Your task to perform on an android device: Open Maps and search for coffee Image 0: 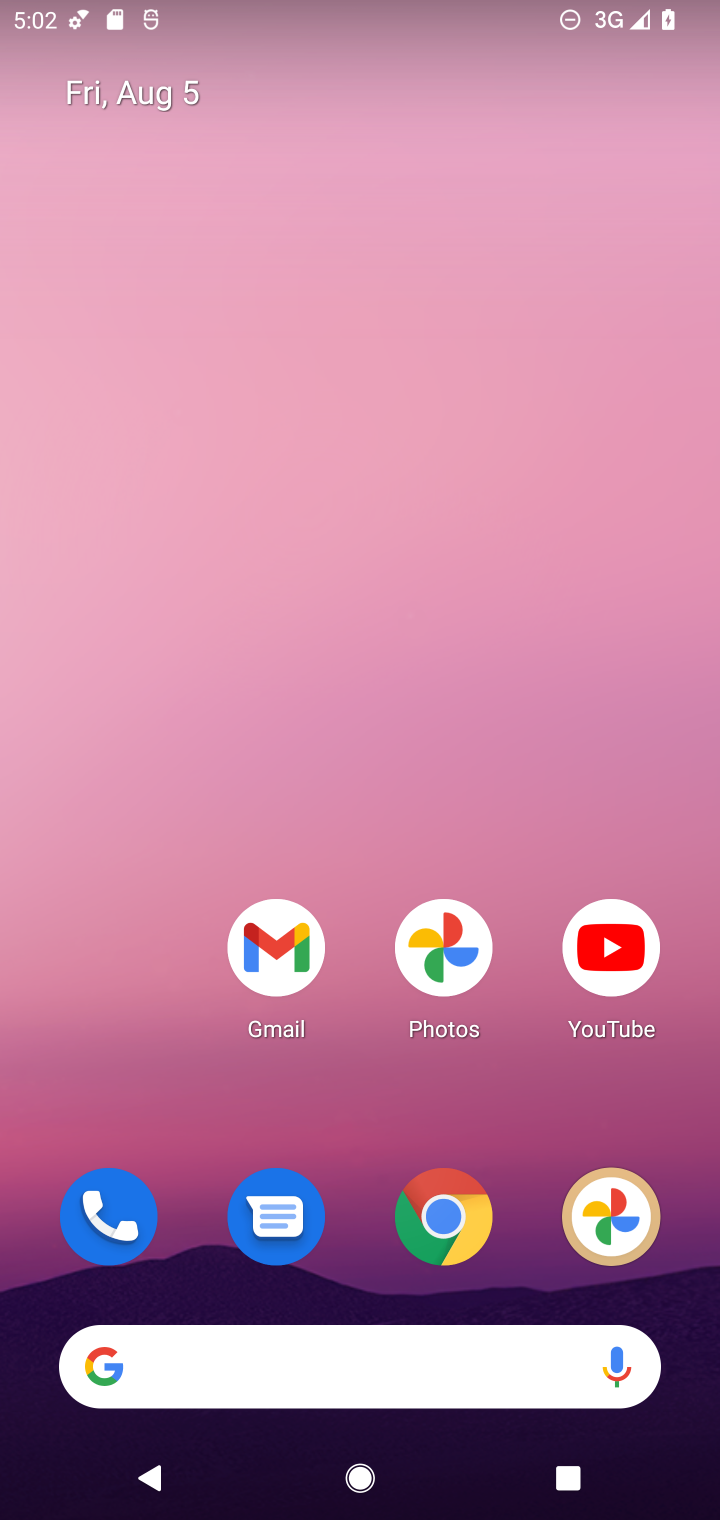
Step 0: drag from (334, 589) to (327, 48)
Your task to perform on an android device: Open Maps and search for coffee Image 1: 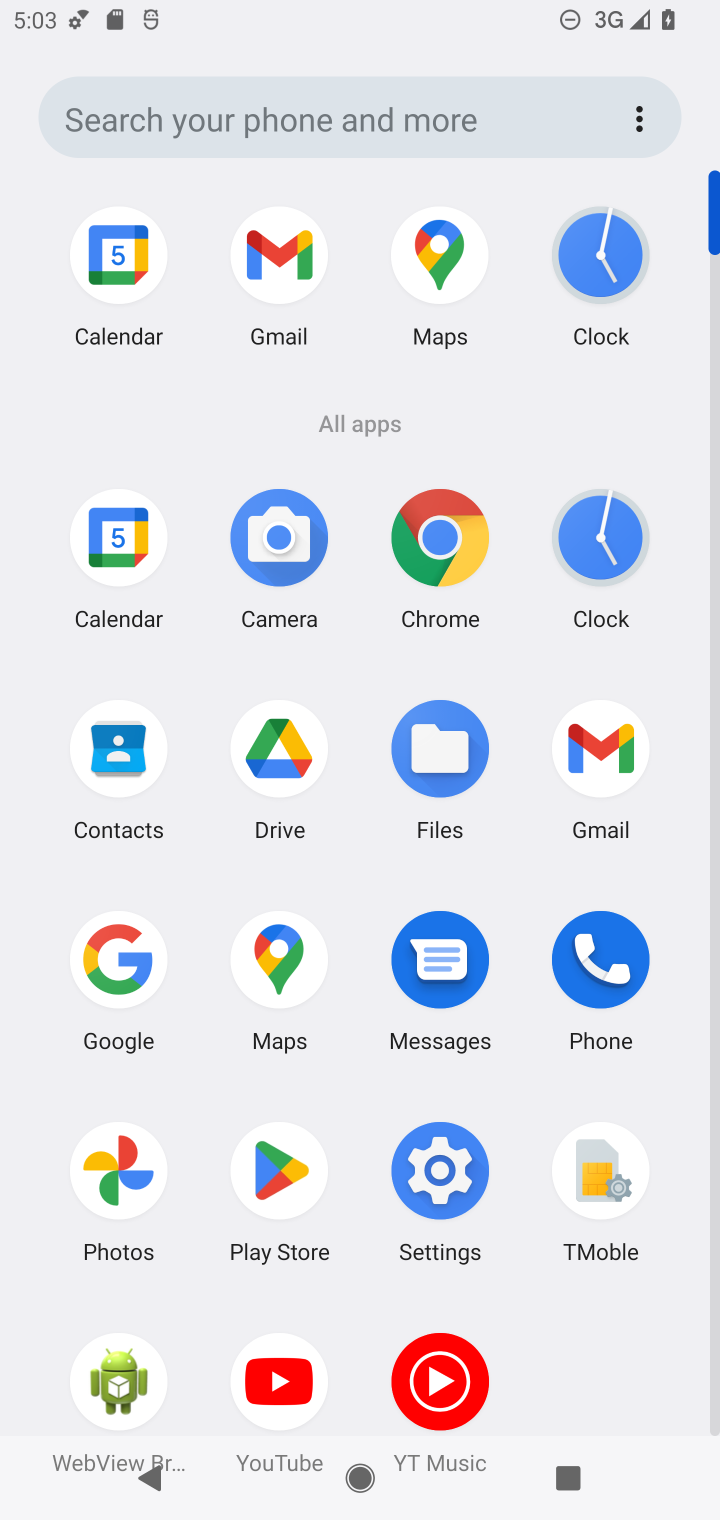
Step 1: click (448, 286)
Your task to perform on an android device: Open Maps and search for coffee Image 2: 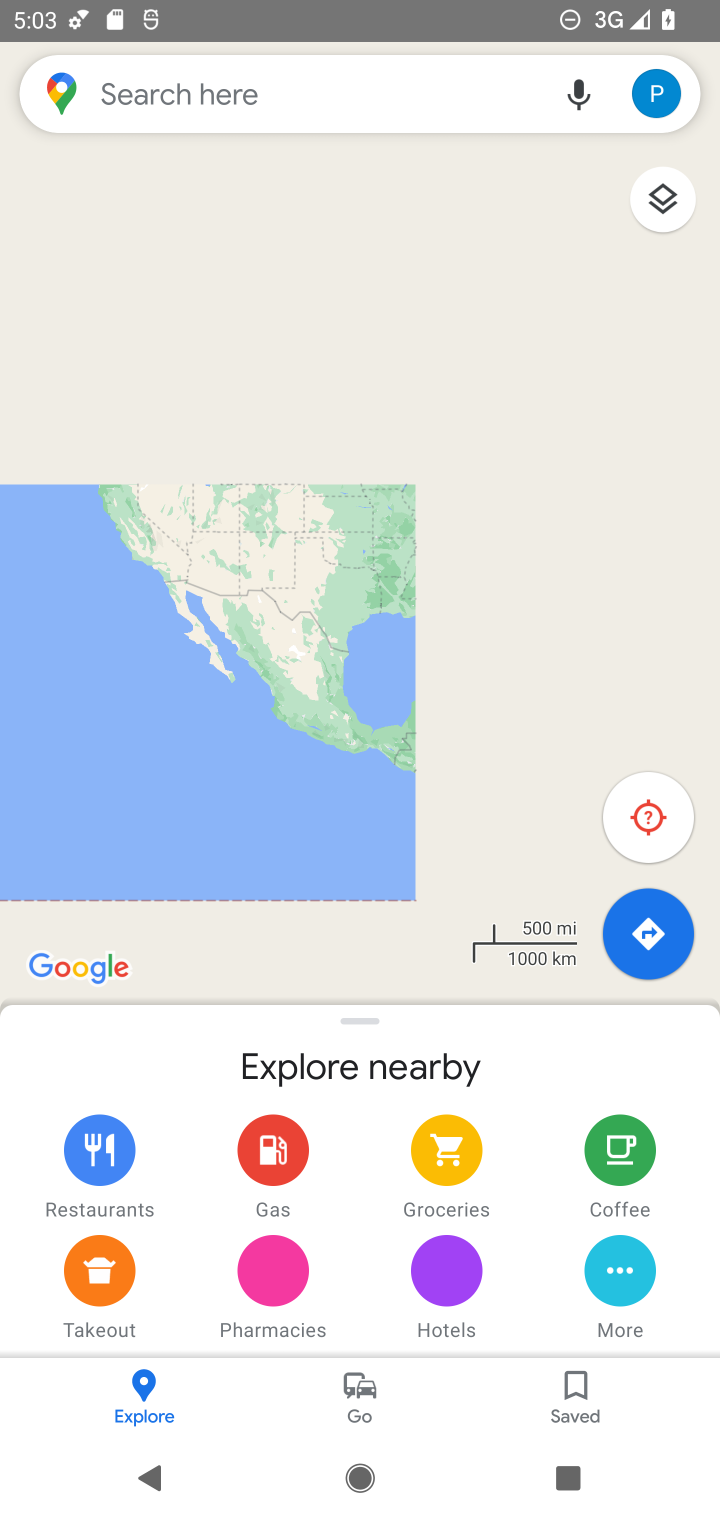
Step 2: click (496, 95)
Your task to perform on an android device: Open Maps and search for coffee Image 3: 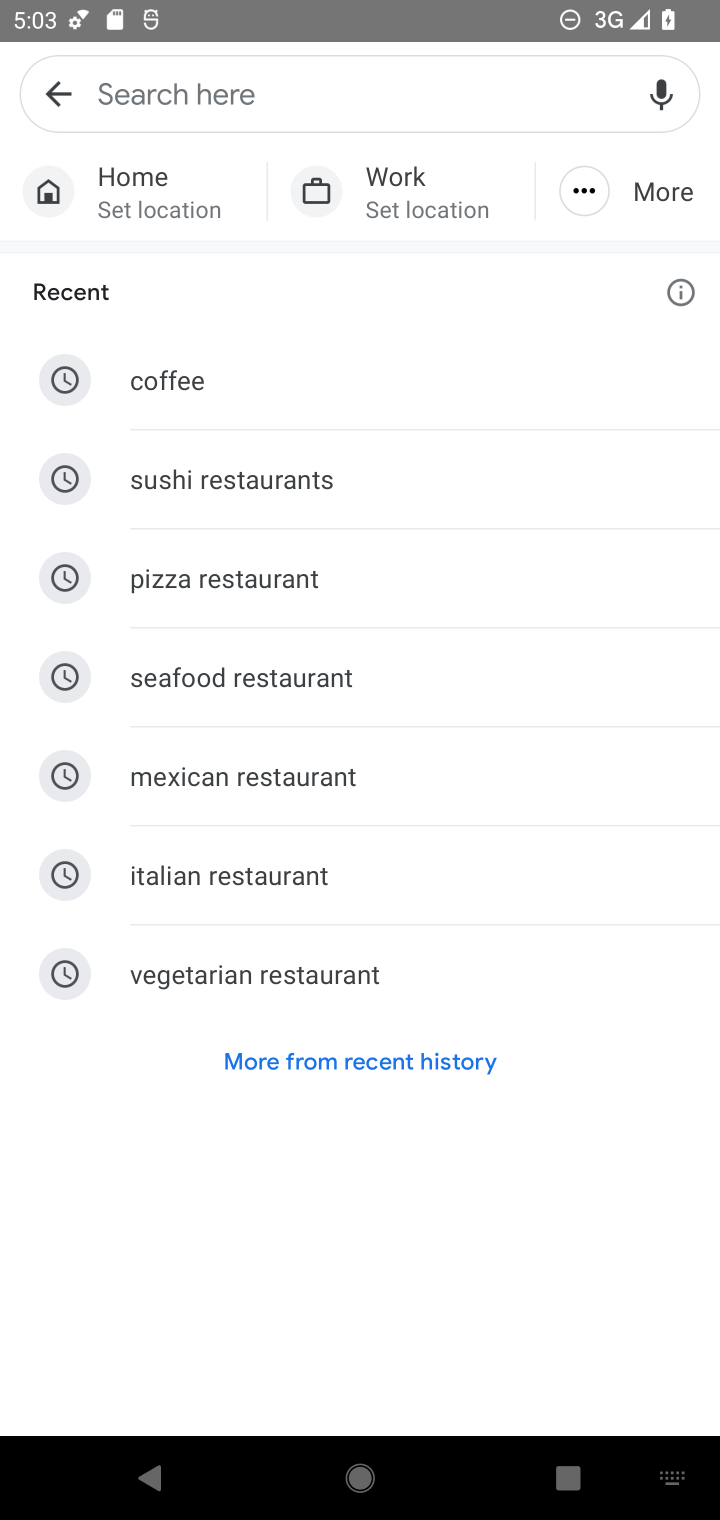
Step 3: type "coffee"
Your task to perform on an android device: Open Maps and search for coffee Image 4: 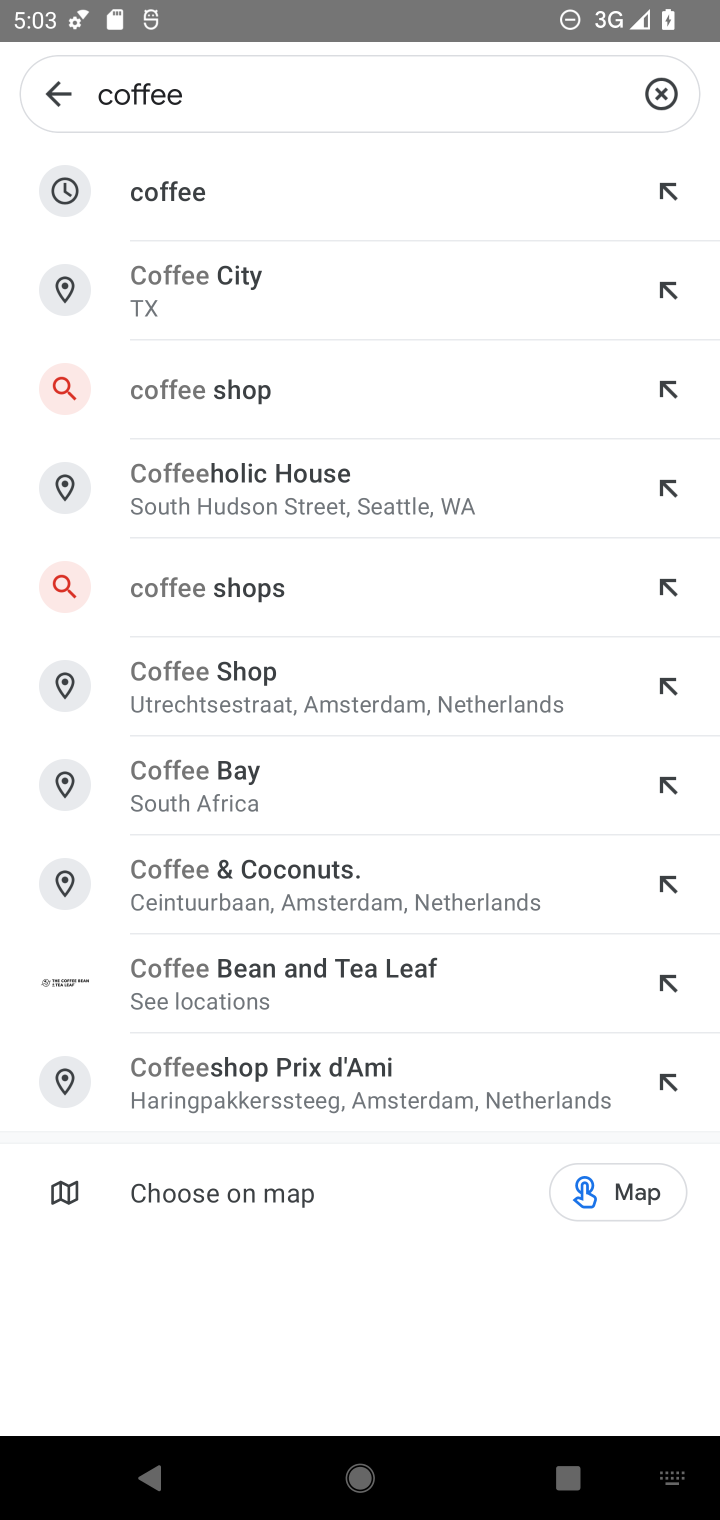
Step 4: click (462, 171)
Your task to perform on an android device: Open Maps and search for coffee Image 5: 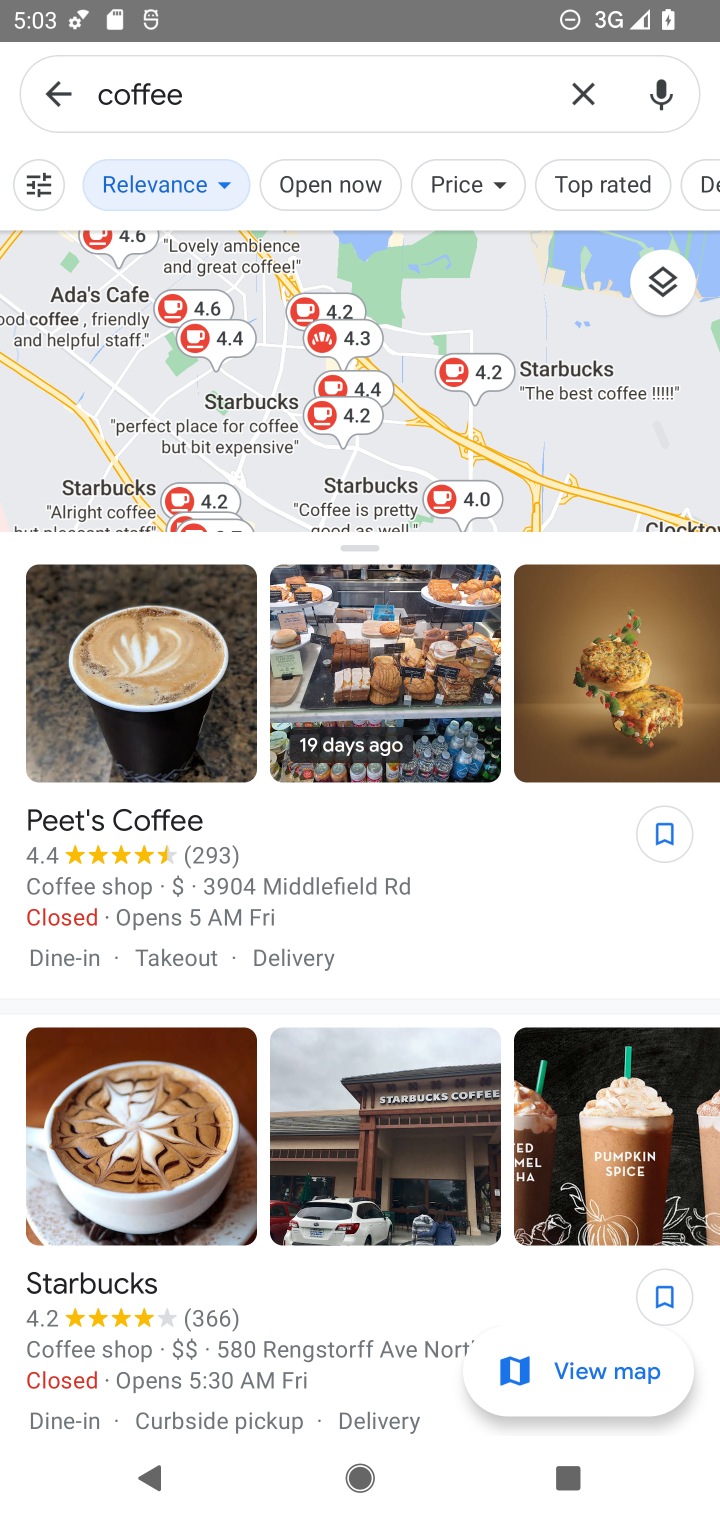
Step 5: task complete